Your task to perform on an android device: read, delete, or share a saved page in the chrome app Image 0: 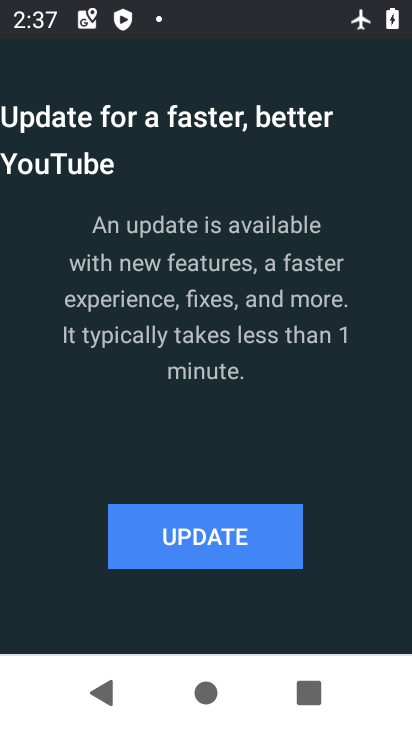
Step 0: press home button
Your task to perform on an android device: read, delete, or share a saved page in the chrome app Image 1: 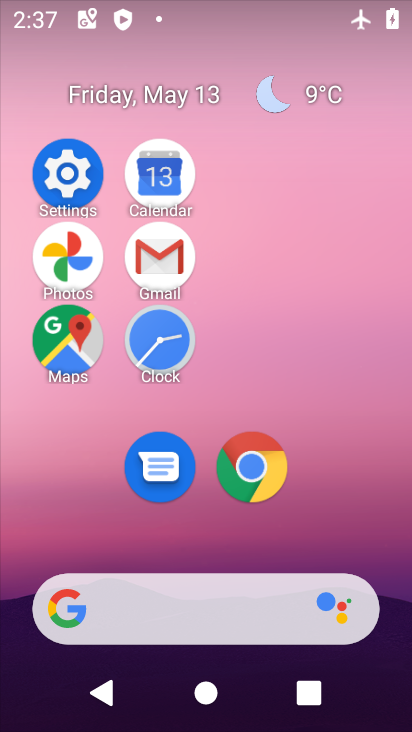
Step 1: click (253, 471)
Your task to perform on an android device: read, delete, or share a saved page in the chrome app Image 2: 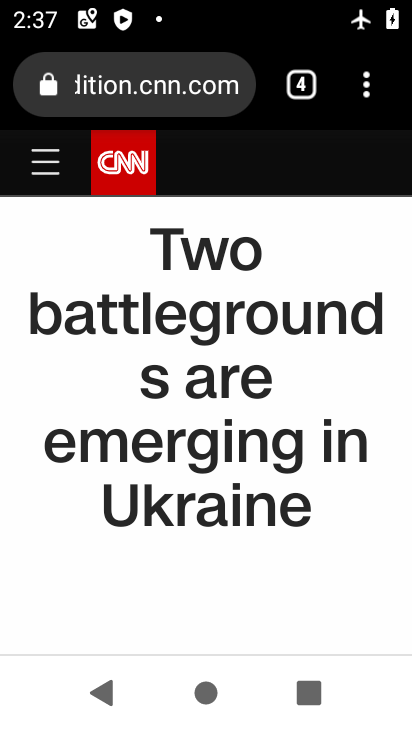
Step 2: click (360, 86)
Your task to perform on an android device: read, delete, or share a saved page in the chrome app Image 3: 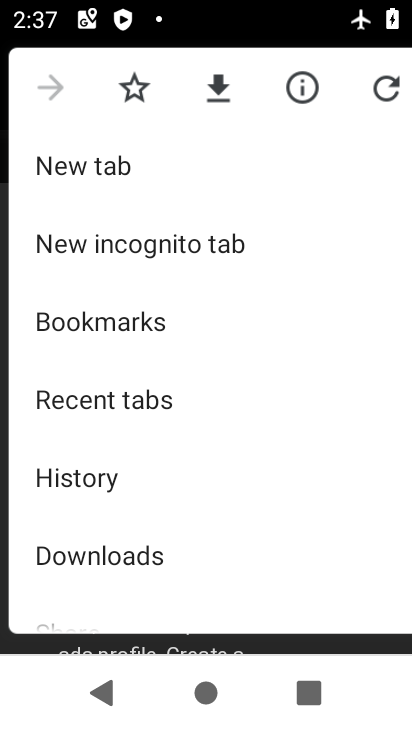
Step 3: drag from (125, 473) to (177, 222)
Your task to perform on an android device: read, delete, or share a saved page in the chrome app Image 4: 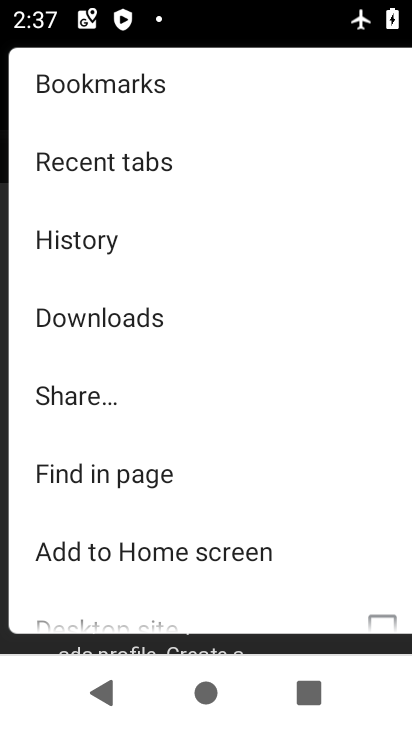
Step 4: click (165, 318)
Your task to perform on an android device: read, delete, or share a saved page in the chrome app Image 5: 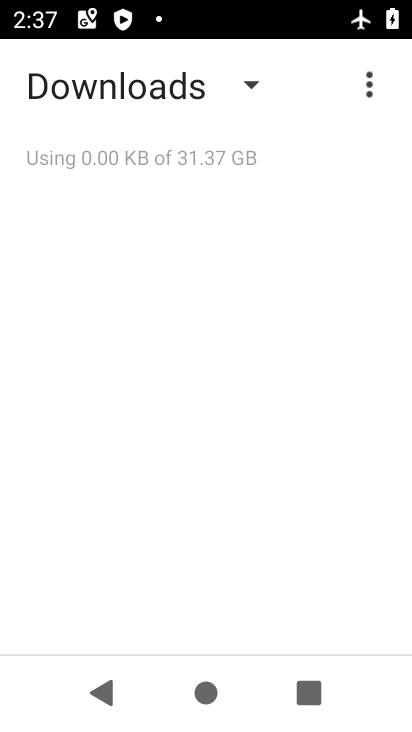
Step 5: task complete